Your task to perform on an android device: Go to Maps Image 0: 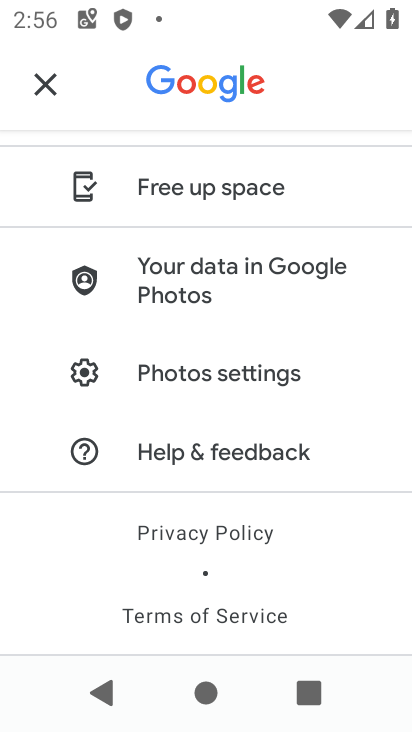
Step 0: press home button
Your task to perform on an android device: Go to Maps Image 1: 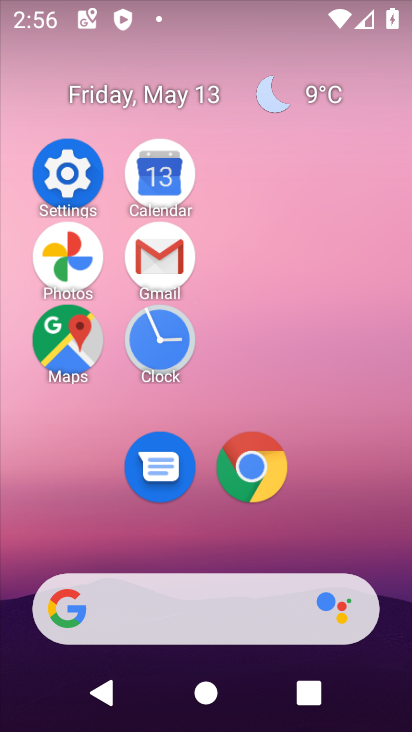
Step 1: click (80, 345)
Your task to perform on an android device: Go to Maps Image 2: 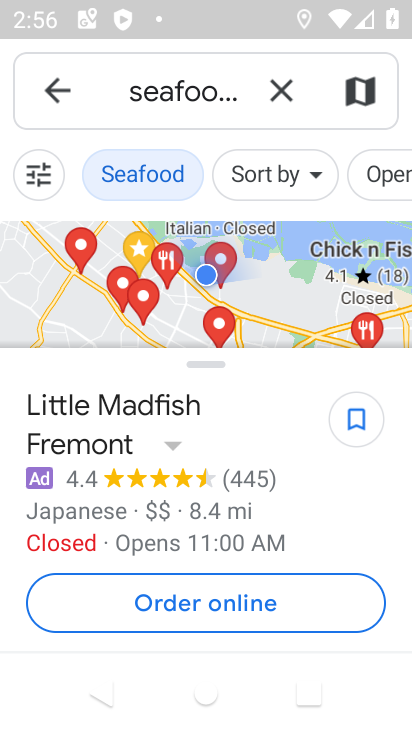
Step 2: task complete